Your task to perform on an android device: turn on translation in the chrome app Image 0: 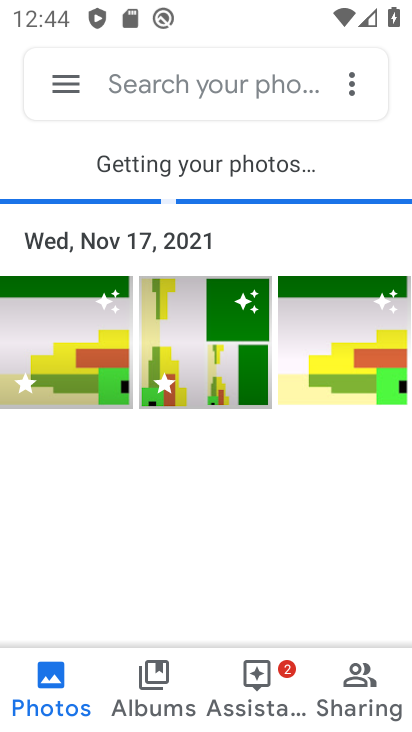
Step 0: press home button
Your task to perform on an android device: turn on translation in the chrome app Image 1: 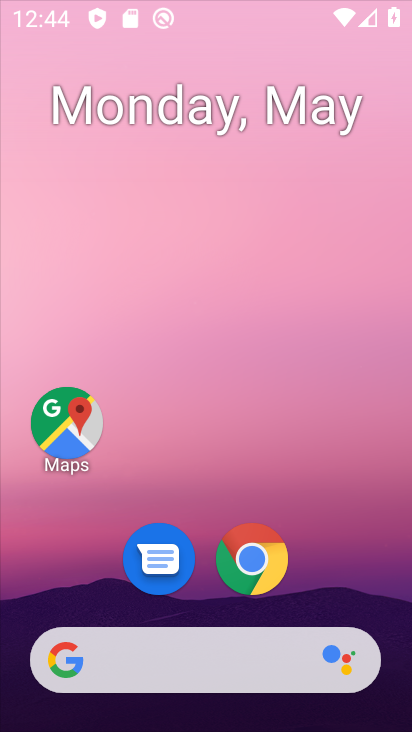
Step 1: drag from (184, 610) to (288, 66)
Your task to perform on an android device: turn on translation in the chrome app Image 2: 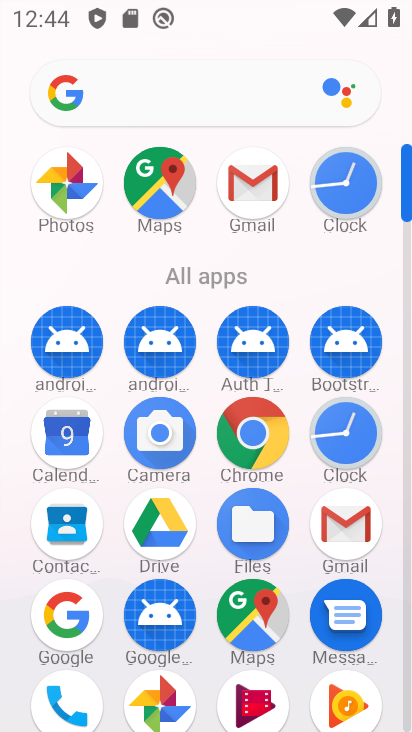
Step 2: click (246, 429)
Your task to perform on an android device: turn on translation in the chrome app Image 3: 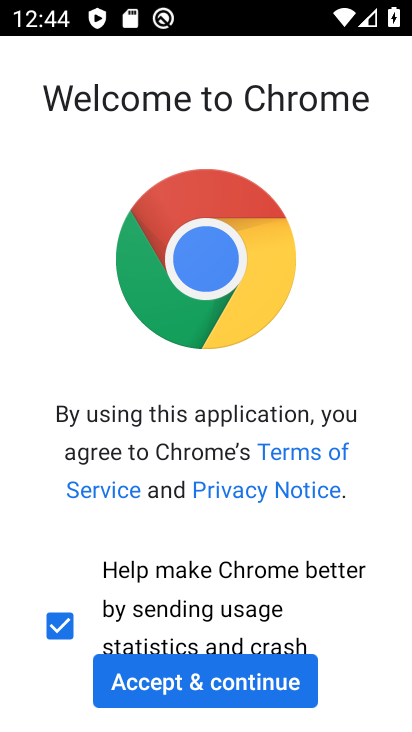
Step 3: click (179, 676)
Your task to perform on an android device: turn on translation in the chrome app Image 4: 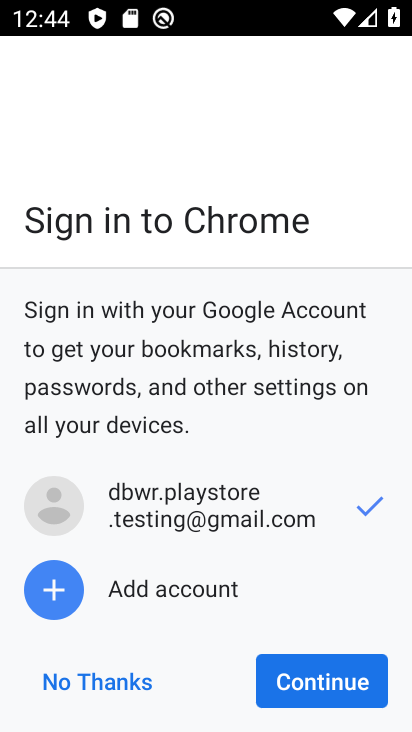
Step 4: click (97, 683)
Your task to perform on an android device: turn on translation in the chrome app Image 5: 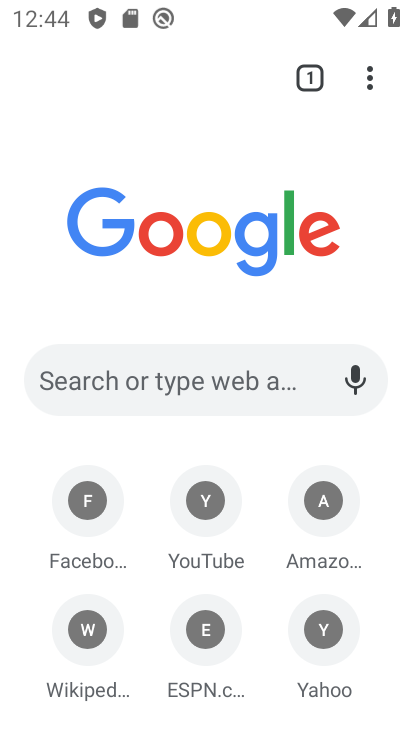
Step 5: click (375, 84)
Your task to perform on an android device: turn on translation in the chrome app Image 6: 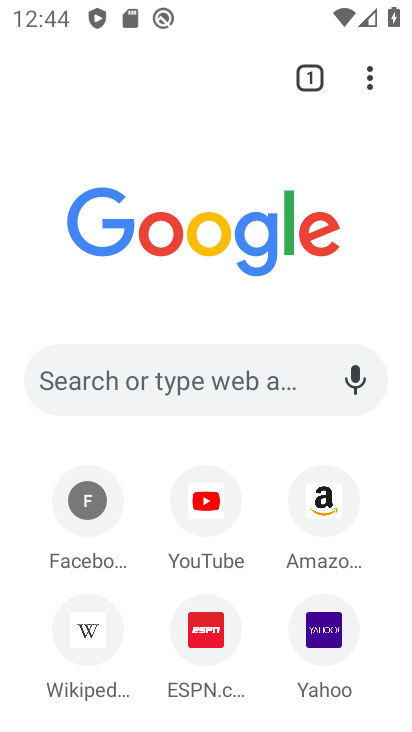
Step 6: drag from (366, 79) to (173, 609)
Your task to perform on an android device: turn on translation in the chrome app Image 7: 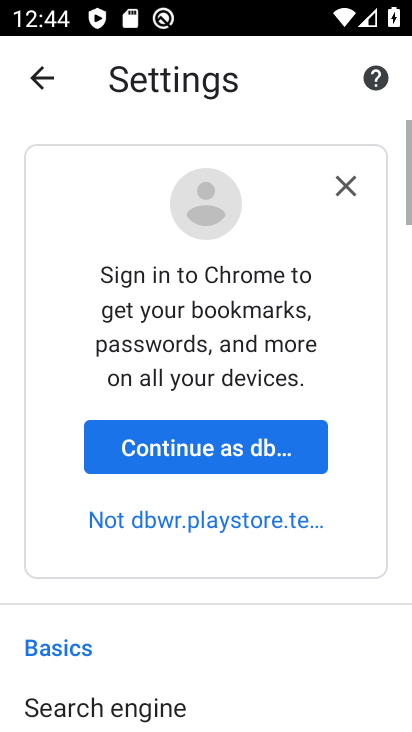
Step 7: drag from (232, 540) to (319, 165)
Your task to perform on an android device: turn on translation in the chrome app Image 8: 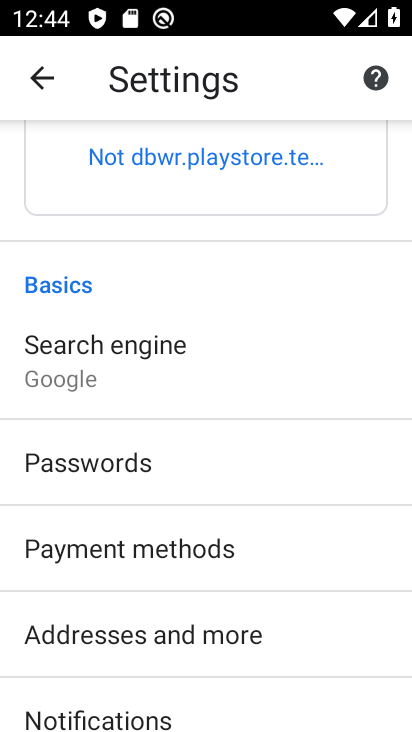
Step 8: drag from (151, 705) to (326, 191)
Your task to perform on an android device: turn on translation in the chrome app Image 9: 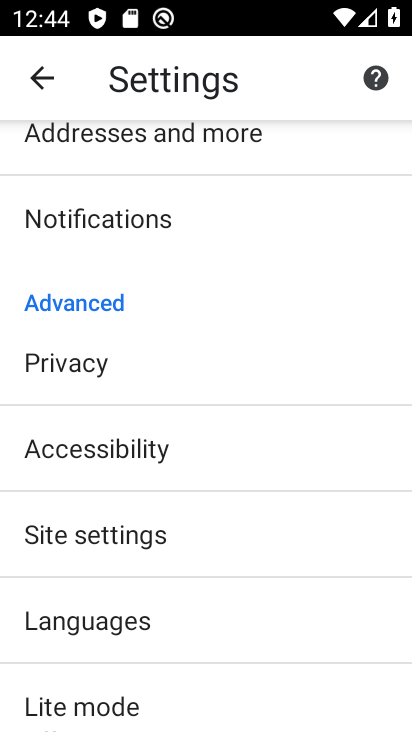
Step 9: click (127, 541)
Your task to perform on an android device: turn on translation in the chrome app Image 10: 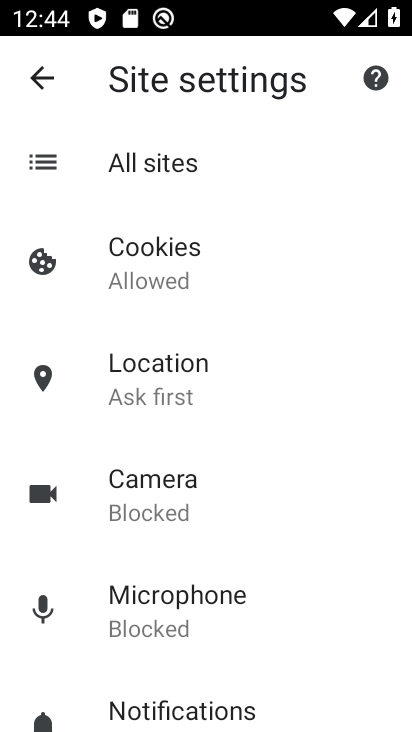
Step 10: drag from (225, 568) to (325, 213)
Your task to perform on an android device: turn on translation in the chrome app Image 11: 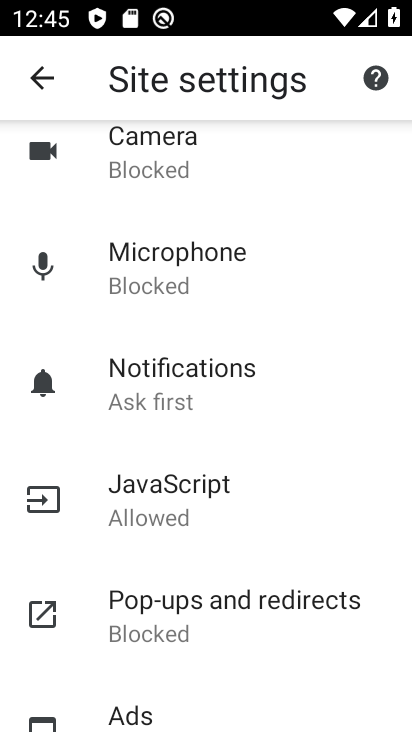
Step 11: drag from (136, 198) to (241, 703)
Your task to perform on an android device: turn on translation in the chrome app Image 12: 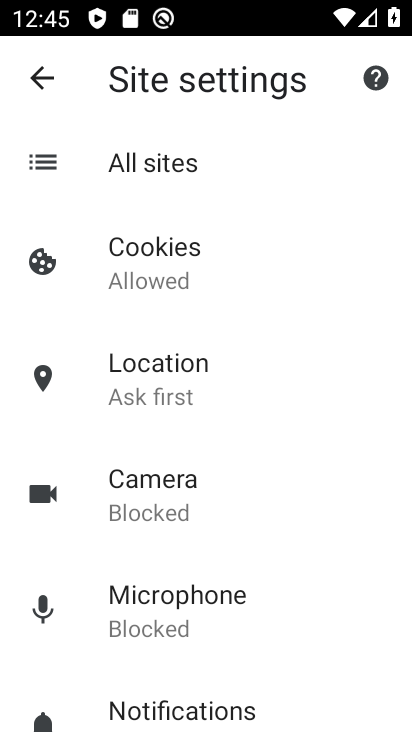
Step 12: click (50, 69)
Your task to perform on an android device: turn on translation in the chrome app Image 13: 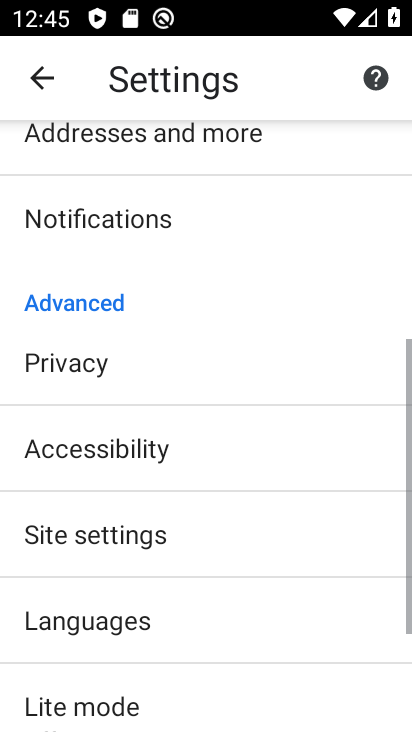
Step 13: drag from (173, 584) to (238, 318)
Your task to perform on an android device: turn on translation in the chrome app Image 14: 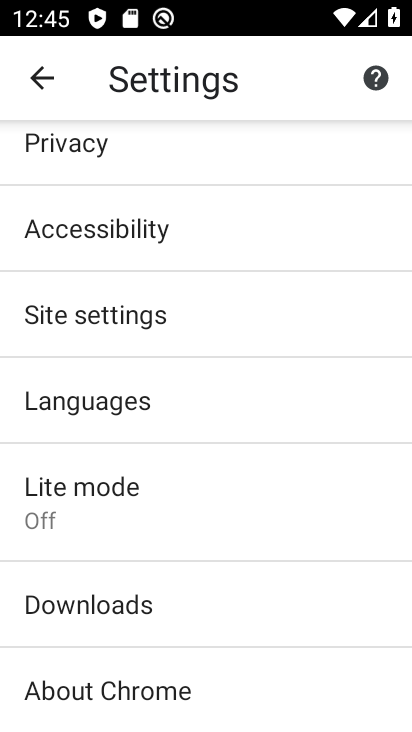
Step 14: click (132, 392)
Your task to perform on an android device: turn on translation in the chrome app Image 15: 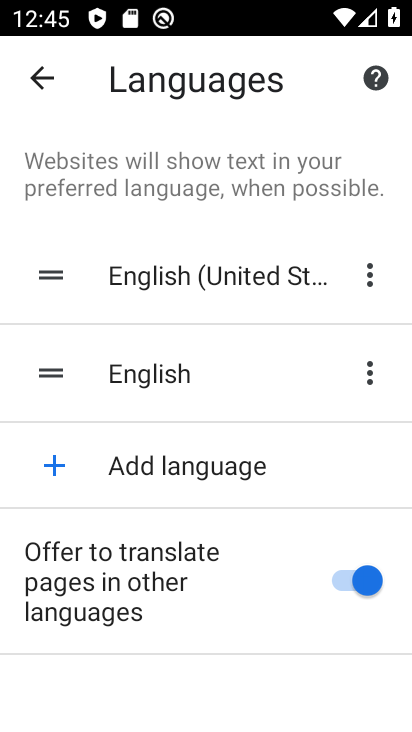
Step 15: task complete